Your task to perform on an android device: Open eBay Image 0: 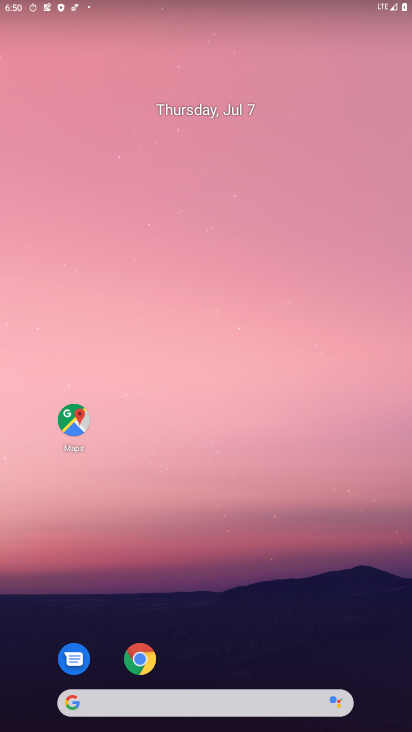
Step 0: drag from (360, 671) to (265, 169)
Your task to perform on an android device: Open eBay Image 1: 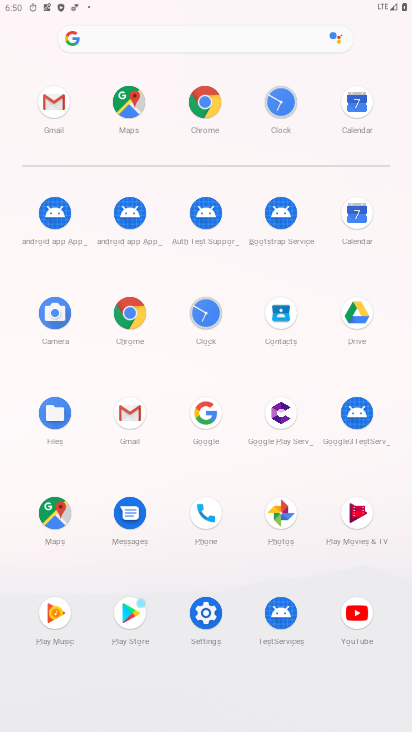
Step 1: click (209, 415)
Your task to perform on an android device: Open eBay Image 2: 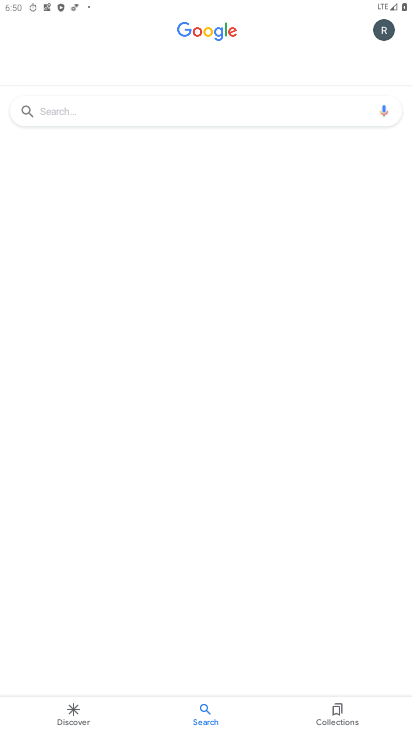
Step 2: click (105, 113)
Your task to perform on an android device: Open eBay Image 3: 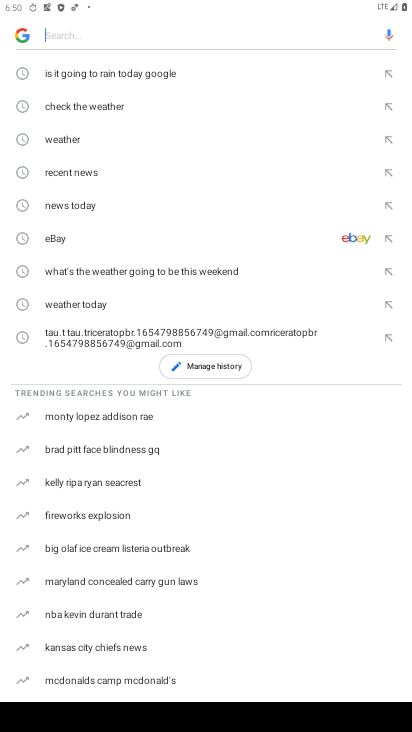
Step 3: click (66, 235)
Your task to perform on an android device: Open eBay Image 4: 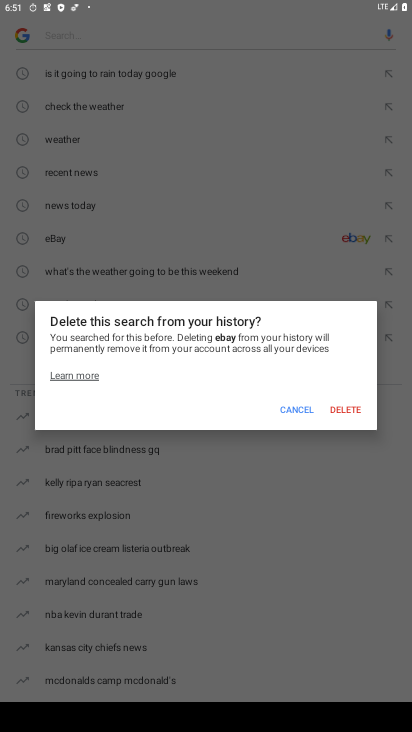
Step 4: click (302, 406)
Your task to perform on an android device: Open eBay Image 5: 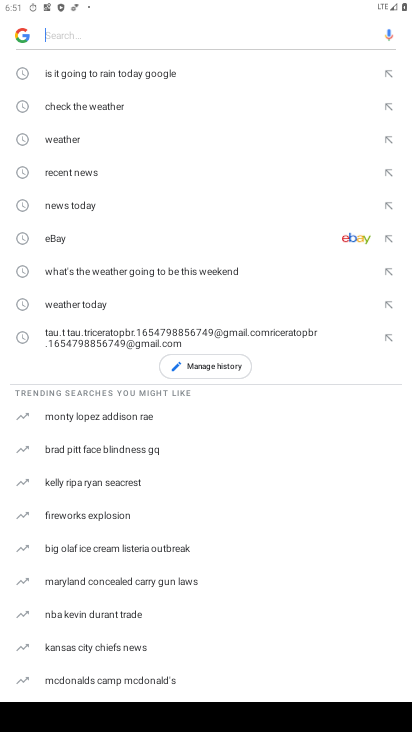
Step 5: click (56, 235)
Your task to perform on an android device: Open eBay Image 6: 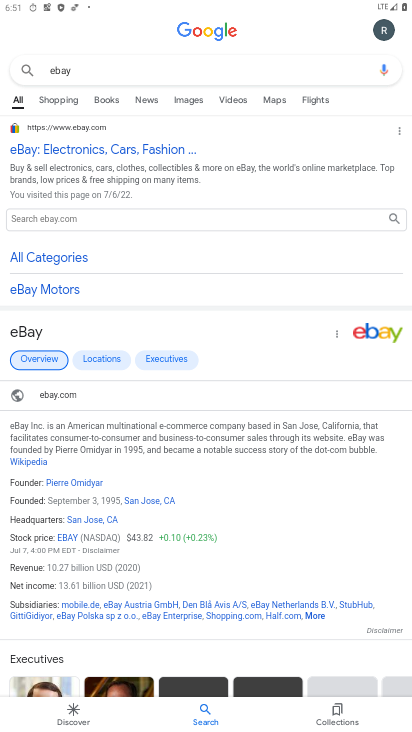
Step 6: task complete